Your task to perform on an android device: turn off location Image 0: 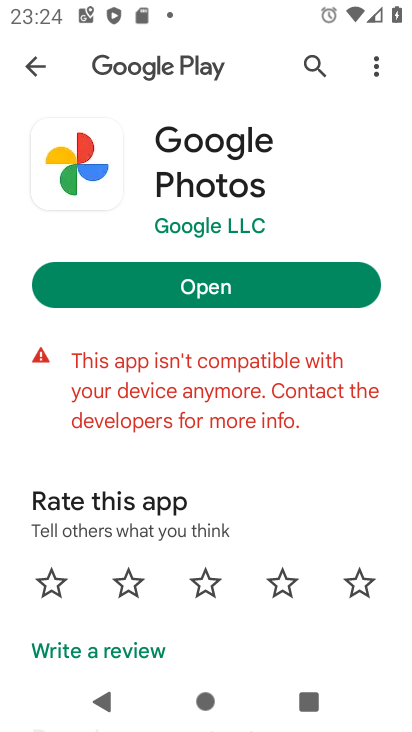
Step 0: press home button
Your task to perform on an android device: turn off location Image 1: 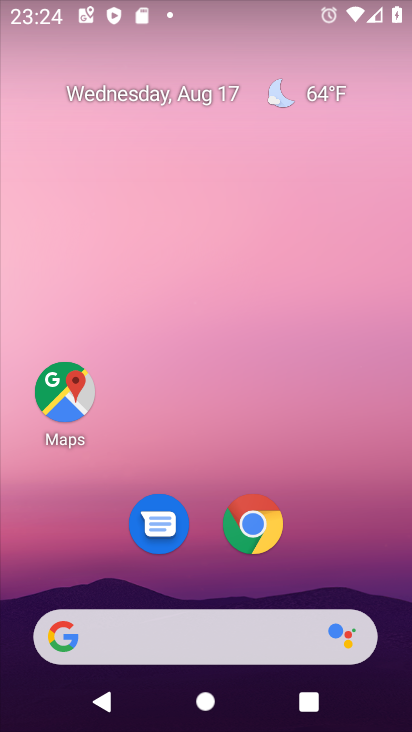
Step 1: drag from (338, 506) to (362, 29)
Your task to perform on an android device: turn off location Image 2: 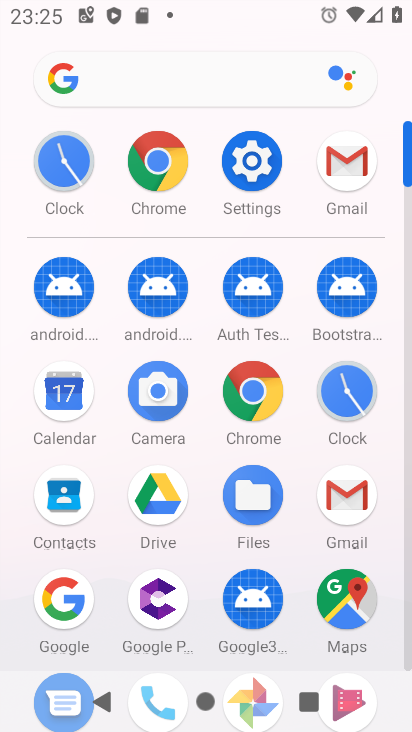
Step 2: click (256, 156)
Your task to perform on an android device: turn off location Image 3: 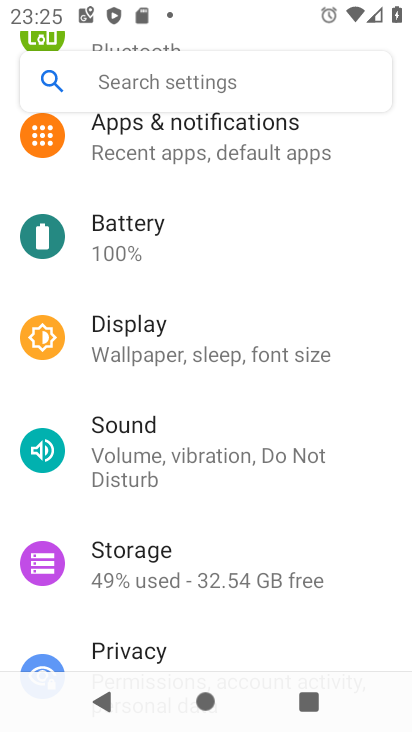
Step 3: drag from (200, 483) to (235, 244)
Your task to perform on an android device: turn off location Image 4: 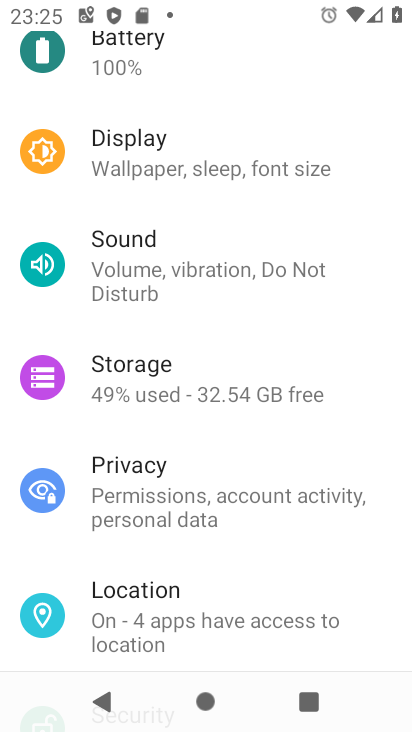
Step 4: click (197, 607)
Your task to perform on an android device: turn off location Image 5: 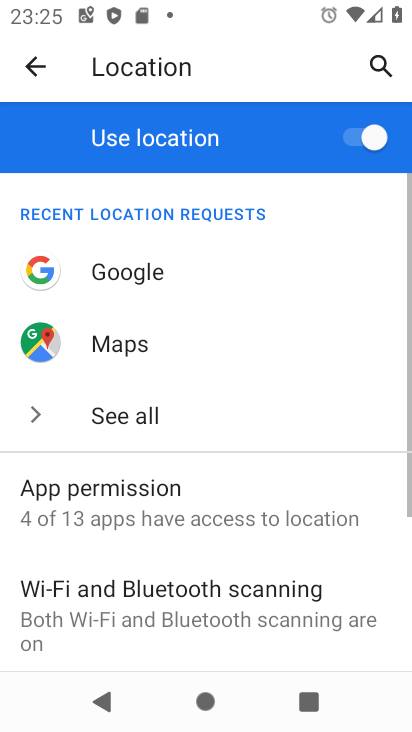
Step 5: click (367, 134)
Your task to perform on an android device: turn off location Image 6: 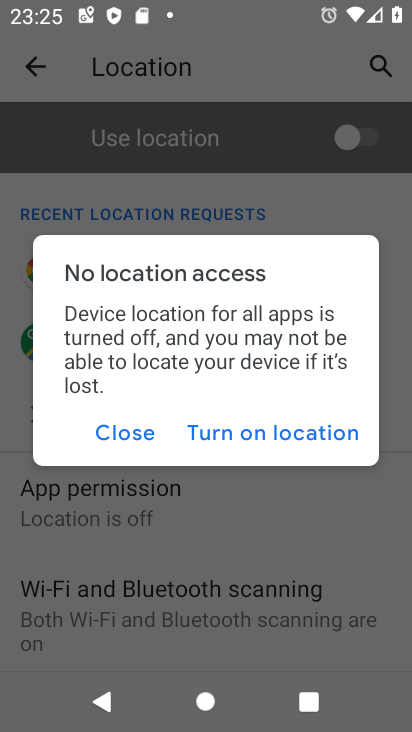
Step 6: task complete